Your task to perform on an android device: Go to Google Image 0: 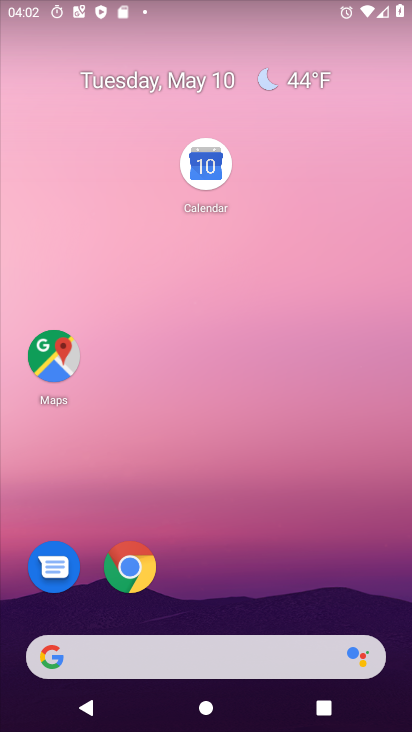
Step 0: drag from (247, 542) to (222, 2)
Your task to perform on an android device: Go to Google Image 1: 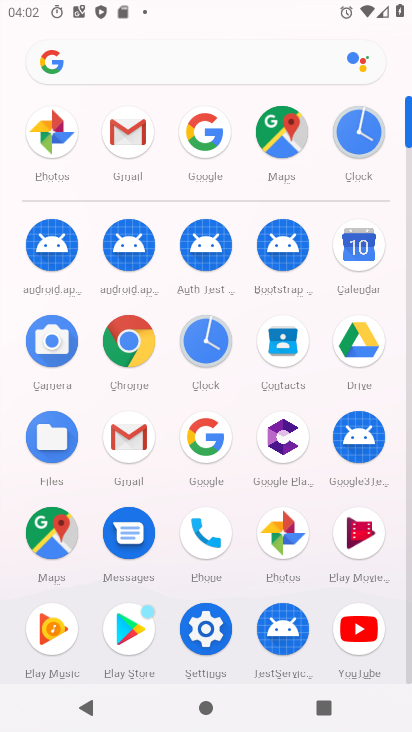
Step 1: click (209, 442)
Your task to perform on an android device: Go to Google Image 2: 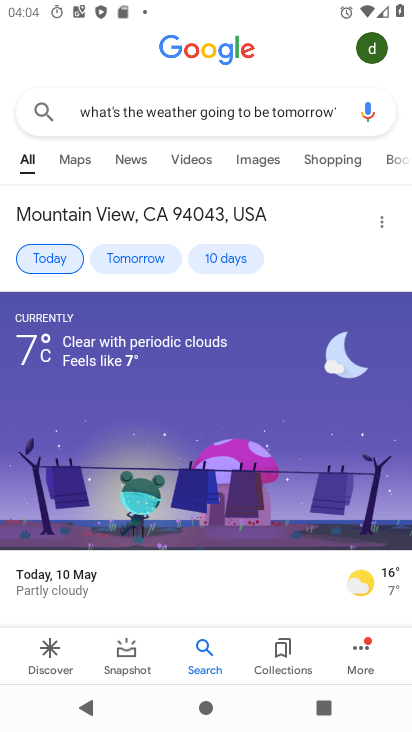
Step 2: task complete